Your task to perform on an android device: Go to display settings Image 0: 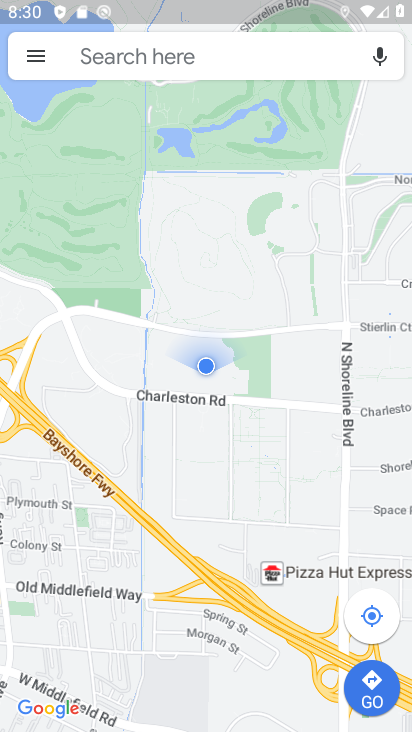
Step 0: press home button
Your task to perform on an android device: Go to display settings Image 1: 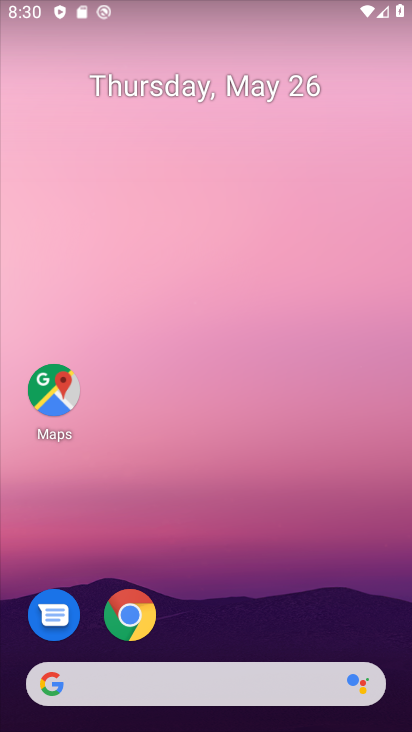
Step 1: drag from (254, 430) to (370, 123)
Your task to perform on an android device: Go to display settings Image 2: 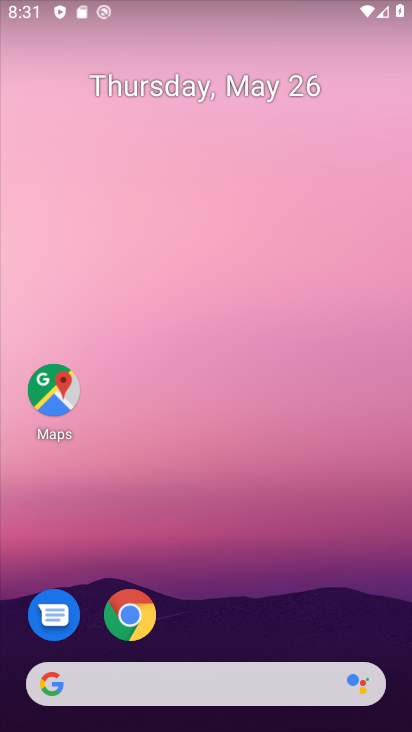
Step 2: drag from (203, 554) to (341, 134)
Your task to perform on an android device: Go to display settings Image 3: 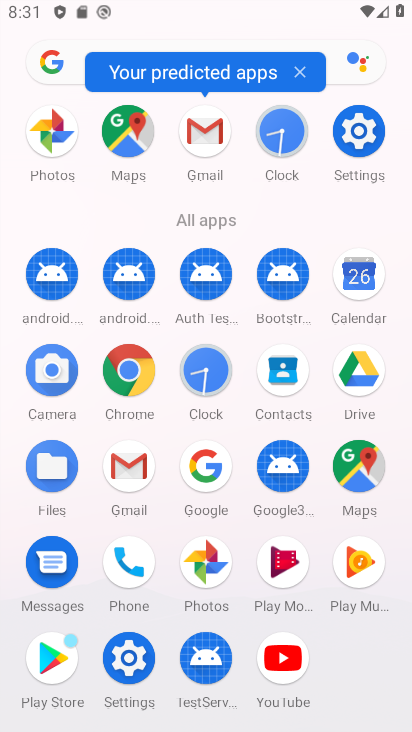
Step 3: click (364, 133)
Your task to perform on an android device: Go to display settings Image 4: 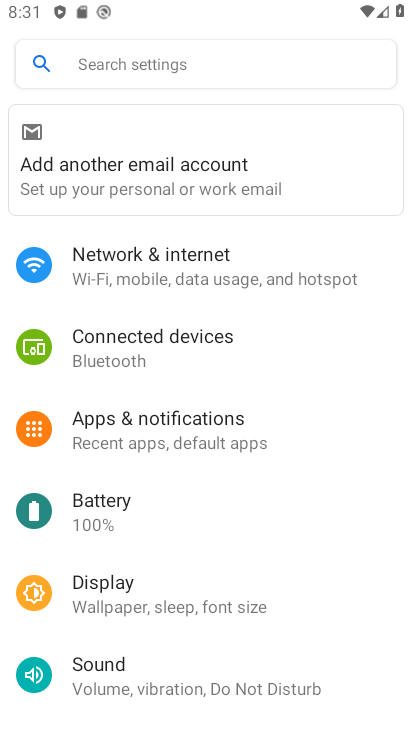
Step 4: click (144, 596)
Your task to perform on an android device: Go to display settings Image 5: 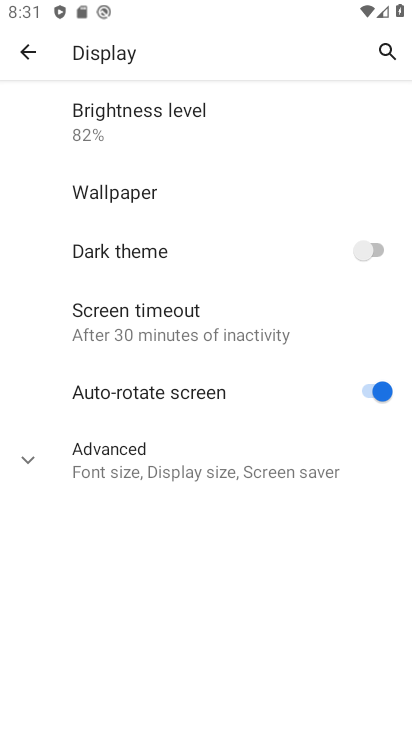
Step 5: task complete